Your task to perform on an android device: turn on translation in the chrome app Image 0: 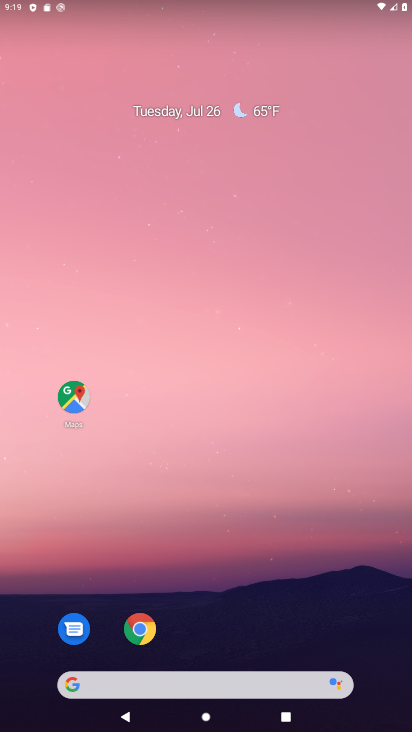
Step 0: drag from (344, 608) to (299, 118)
Your task to perform on an android device: turn on translation in the chrome app Image 1: 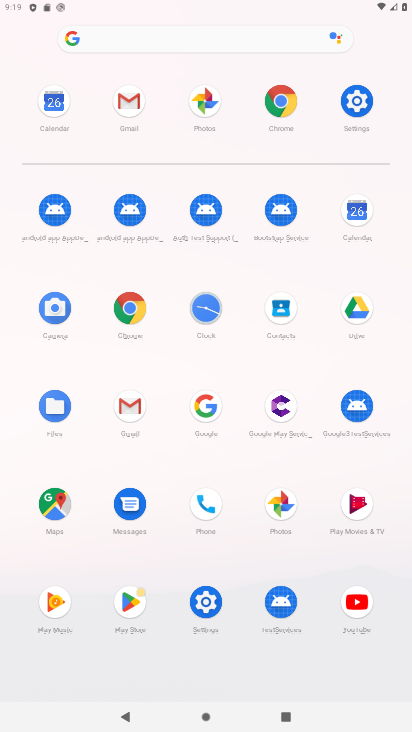
Step 1: click (278, 99)
Your task to perform on an android device: turn on translation in the chrome app Image 2: 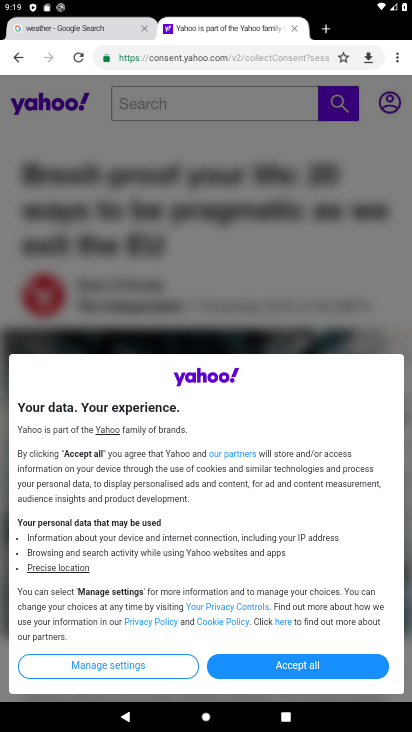
Step 2: drag from (400, 57) to (292, 379)
Your task to perform on an android device: turn on translation in the chrome app Image 3: 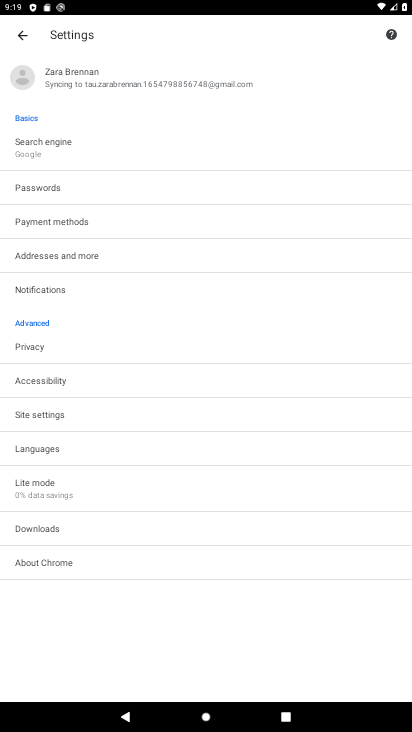
Step 3: click (58, 450)
Your task to perform on an android device: turn on translation in the chrome app Image 4: 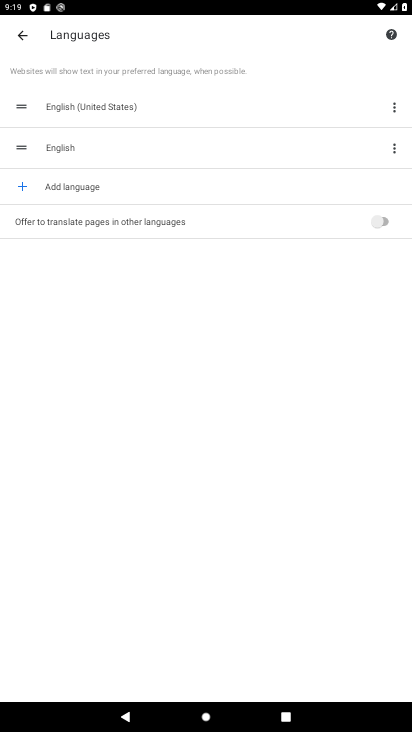
Step 4: click (383, 230)
Your task to perform on an android device: turn on translation in the chrome app Image 5: 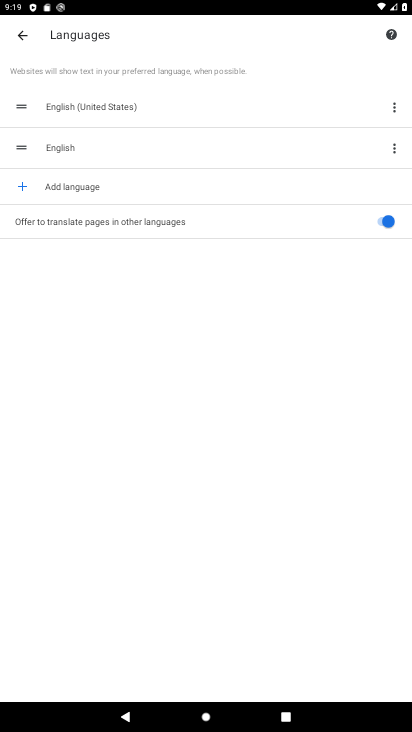
Step 5: task complete